Your task to perform on an android device: change timer sound Image 0: 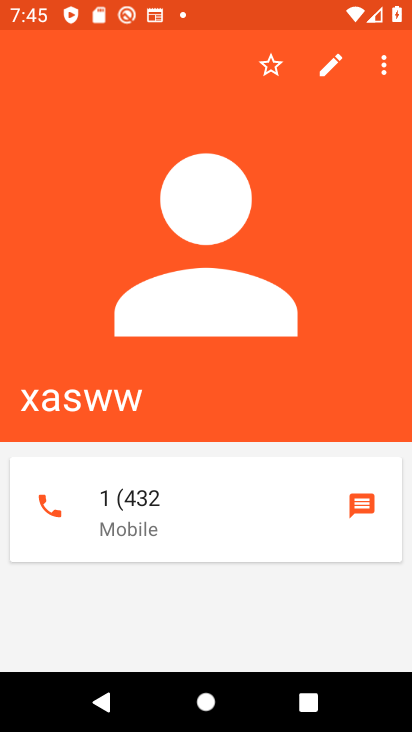
Step 0: press home button
Your task to perform on an android device: change timer sound Image 1: 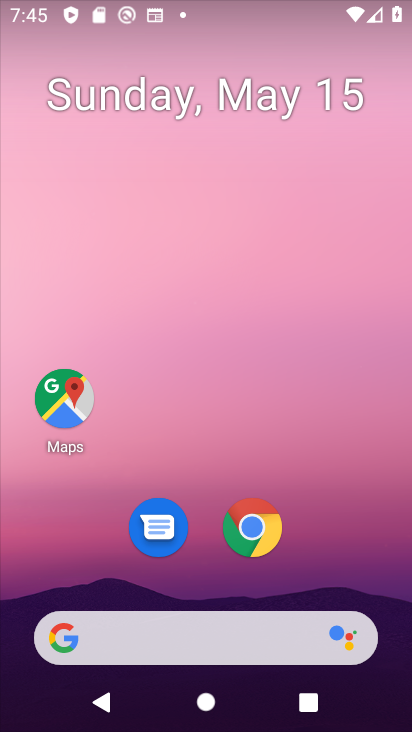
Step 1: drag from (182, 591) to (354, 69)
Your task to perform on an android device: change timer sound Image 2: 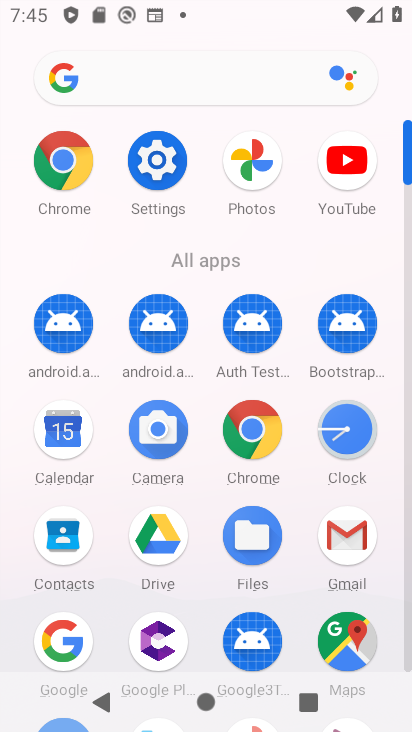
Step 2: click (345, 443)
Your task to perform on an android device: change timer sound Image 3: 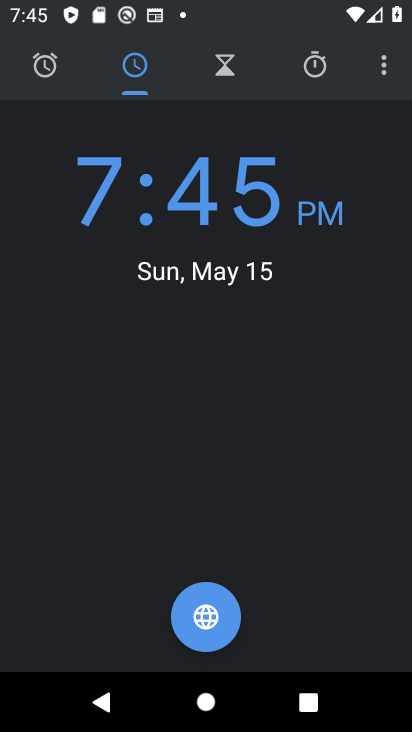
Step 3: click (386, 67)
Your task to perform on an android device: change timer sound Image 4: 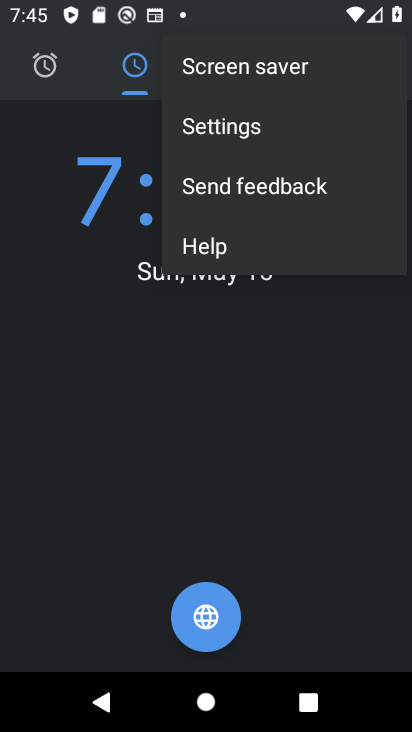
Step 4: click (202, 120)
Your task to perform on an android device: change timer sound Image 5: 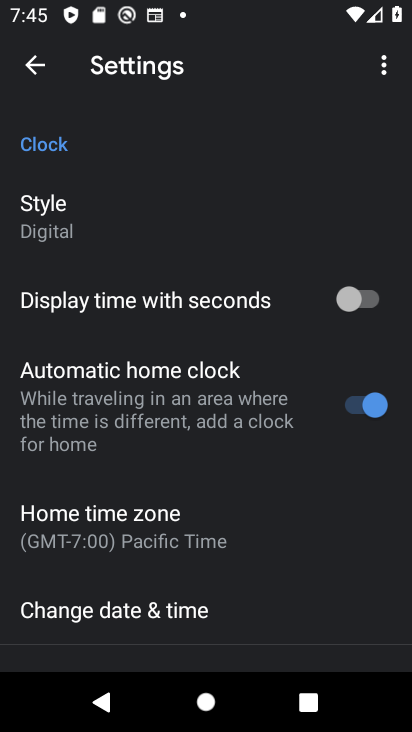
Step 5: drag from (205, 553) to (368, 29)
Your task to perform on an android device: change timer sound Image 6: 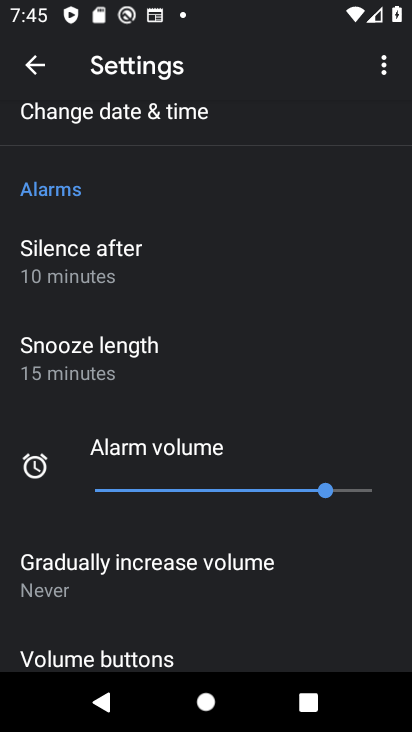
Step 6: drag from (103, 627) to (324, 80)
Your task to perform on an android device: change timer sound Image 7: 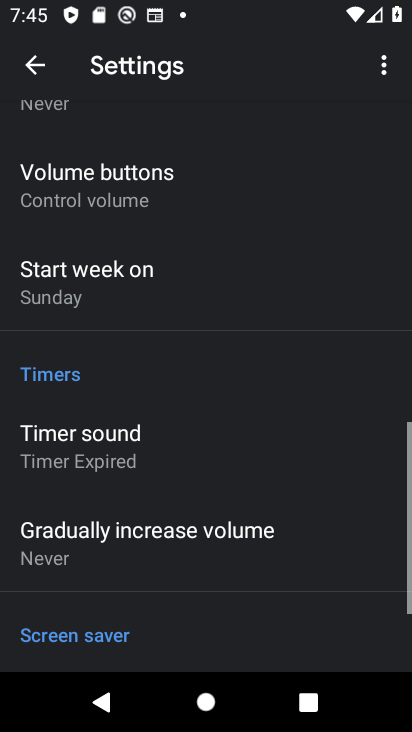
Step 7: click (137, 469)
Your task to perform on an android device: change timer sound Image 8: 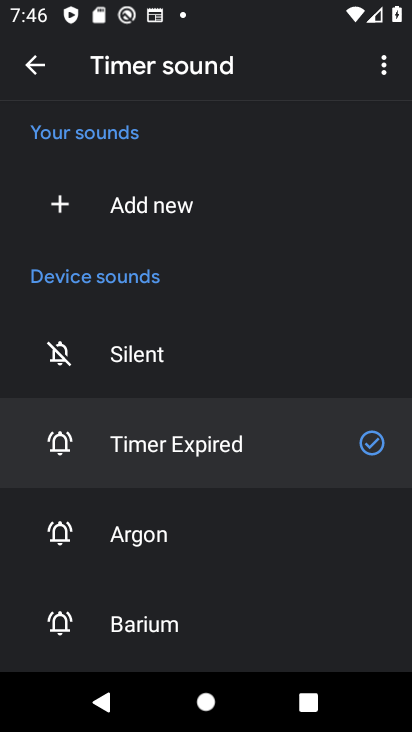
Step 8: click (165, 354)
Your task to perform on an android device: change timer sound Image 9: 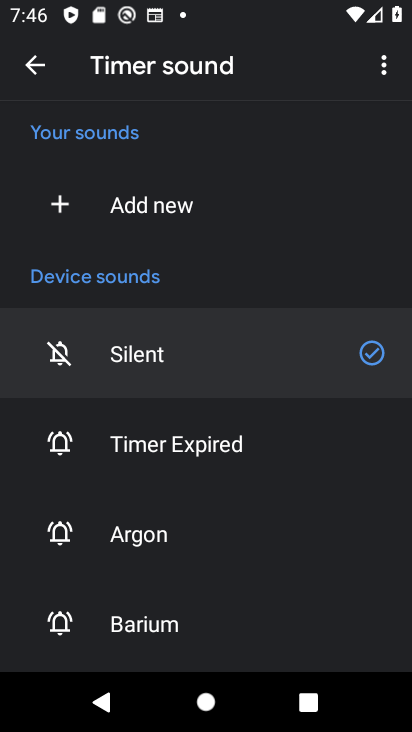
Step 9: task complete